Your task to perform on an android device: check the backup settings in the google photos Image 0: 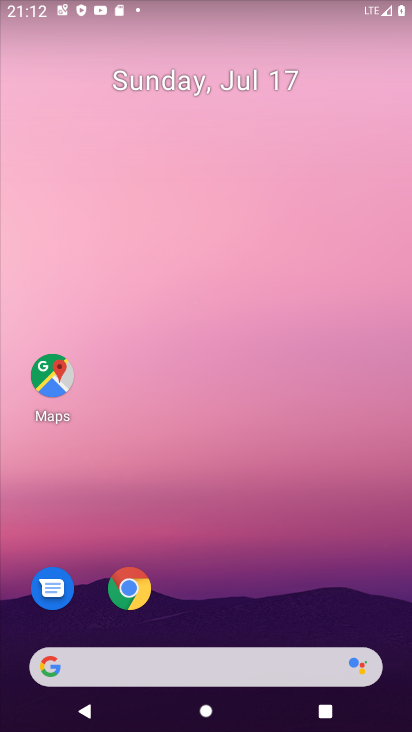
Step 0: press home button
Your task to perform on an android device: check the backup settings in the google photos Image 1: 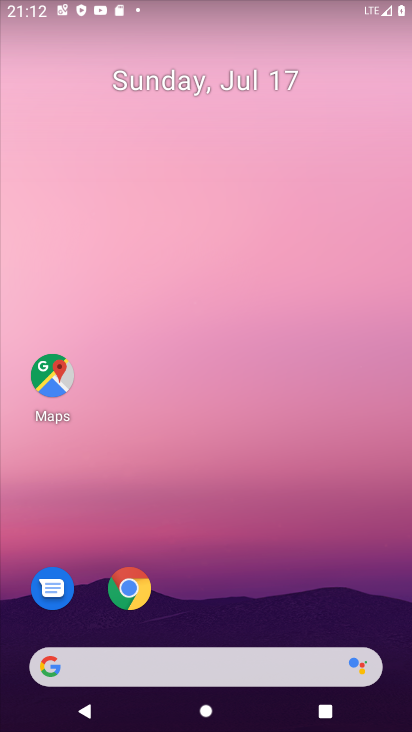
Step 1: drag from (287, 633) to (306, 174)
Your task to perform on an android device: check the backup settings in the google photos Image 2: 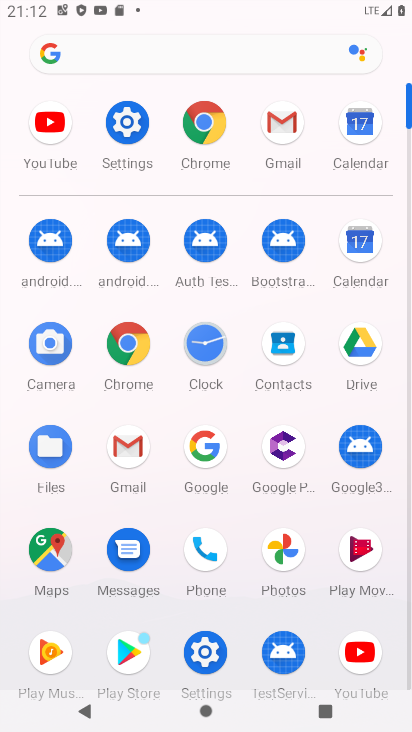
Step 2: click (278, 542)
Your task to perform on an android device: check the backup settings in the google photos Image 3: 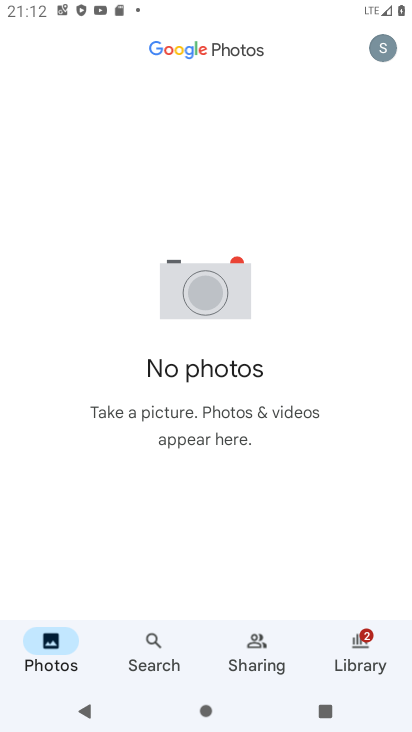
Step 3: click (380, 59)
Your task to perform on an android device: check the backup settings in the google photos Image 4: 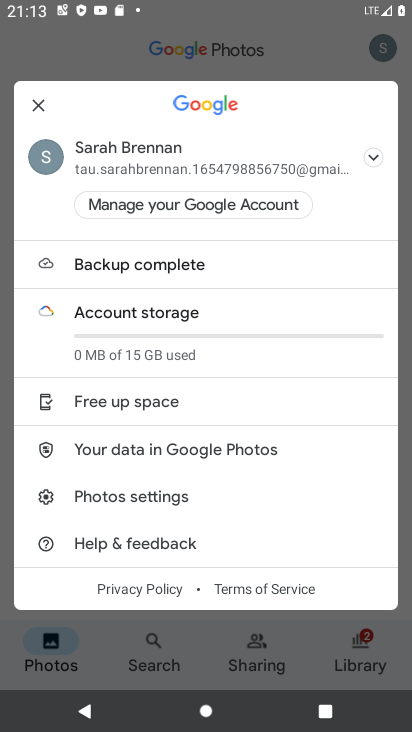
Step 4: click (101, 493)
Your task to perform on an android device: check the backup settings in the google photos Image 5: 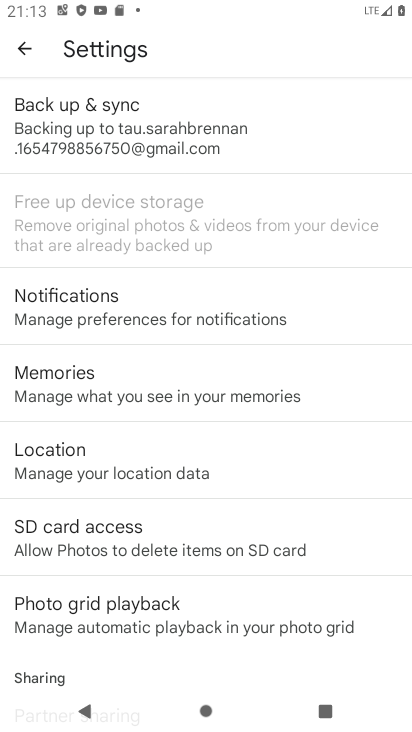
Step 5: click (152, 129)
Your task to perform on an android device: check the backup settings in the google photos Image 6: 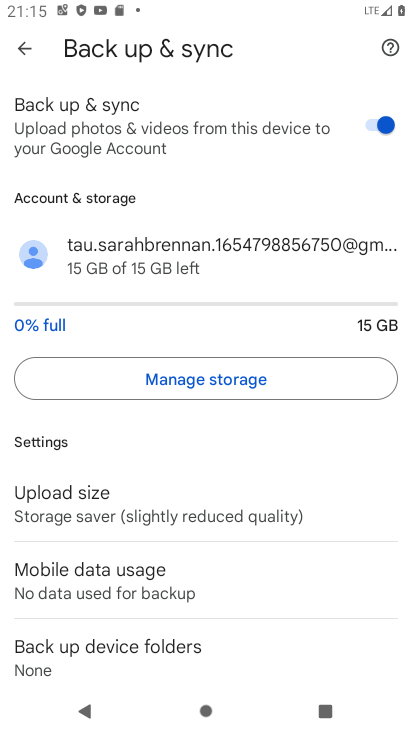
Step 6: task complete